Your task to perform on an android device: What's the weather going to be this weekend? Image 0: 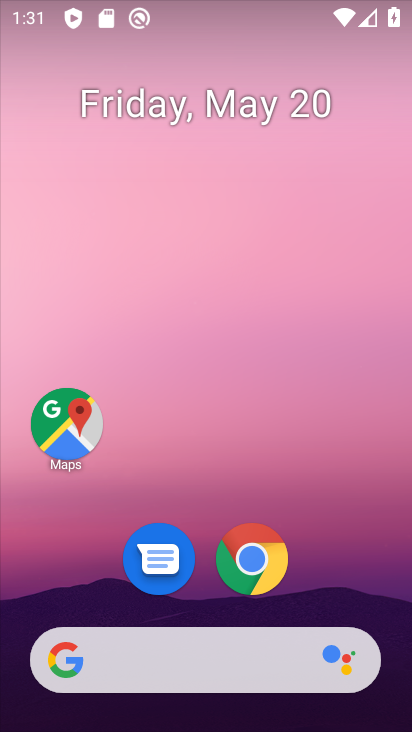
Step 0: click (197, 660)
Your task to perform on an android device: What's the weather going to be this weekend? Image 1: 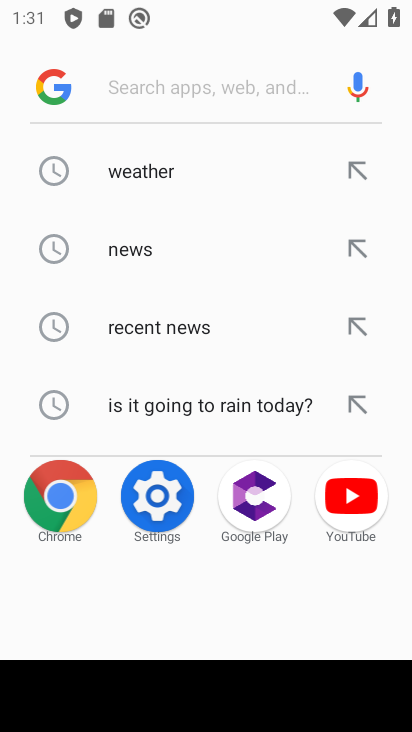
Step 1: type "what's the weather going to be this weekend"
Your task to perform on an android device: What's the weather going to be this weekend? Image 2: 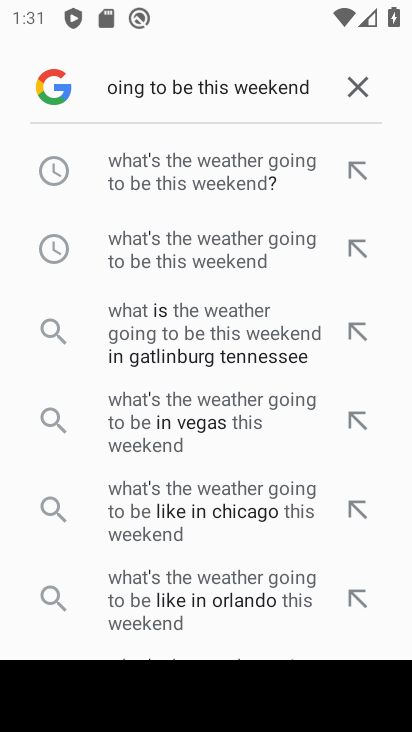
Step 2: click (224, 181)
Your task to perform on an android device: What's the weather going to be this weekend? Image 3: 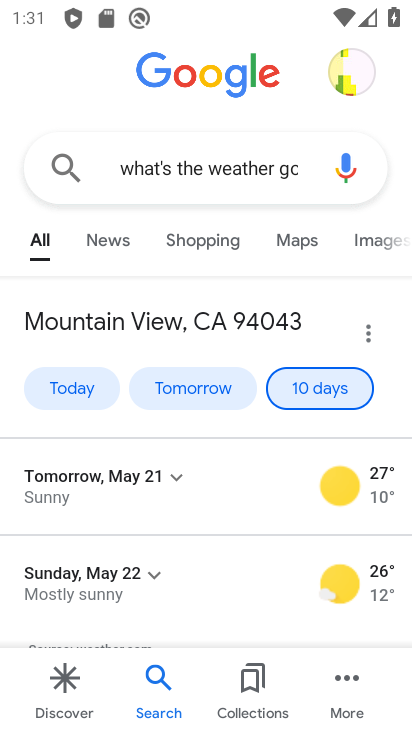
Step 3: task complete